Your task to perform on an android device: Open settings Image 0: 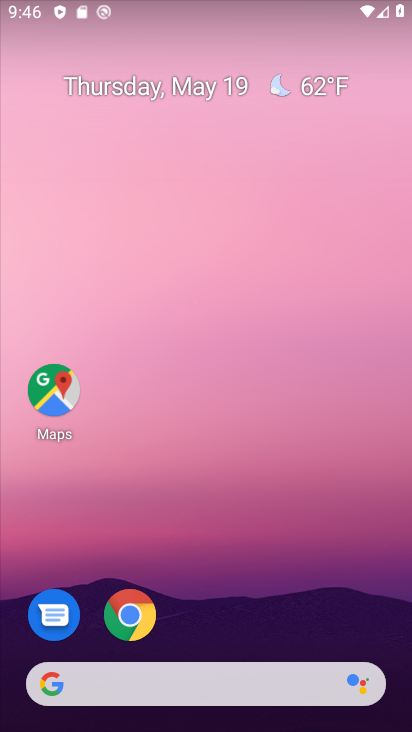
Step 0: drag from (270, 502) to (152, 54)
Your task to perform on an android device: Open settings Image 1: 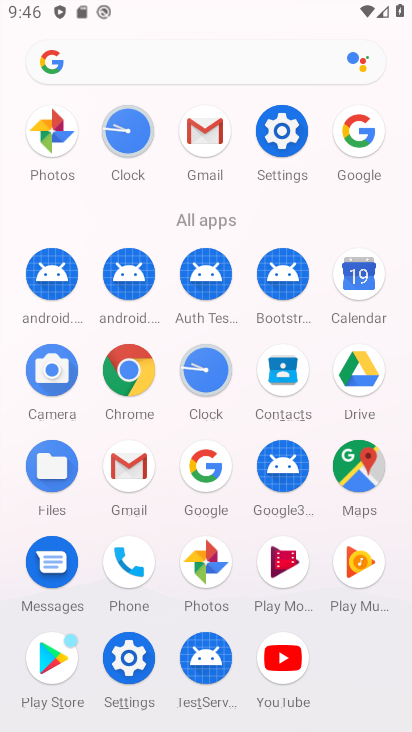
Step 1: click (289, 129)
Your task to perform on an android device: Open settings Image 2: 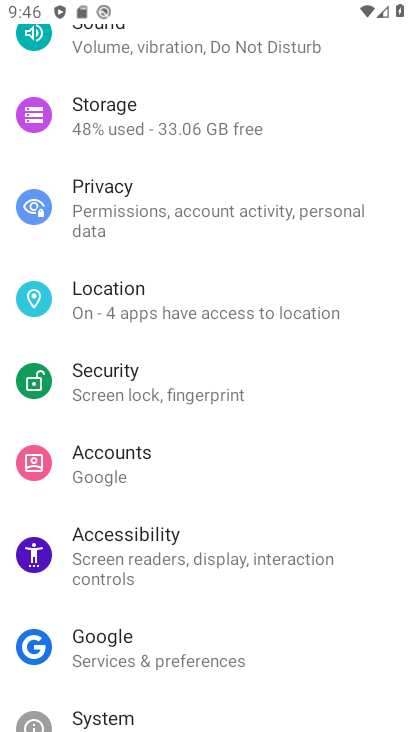
Step 2: task complete